Your task to perform on an android device: empty trash in the gmail app Image 0: 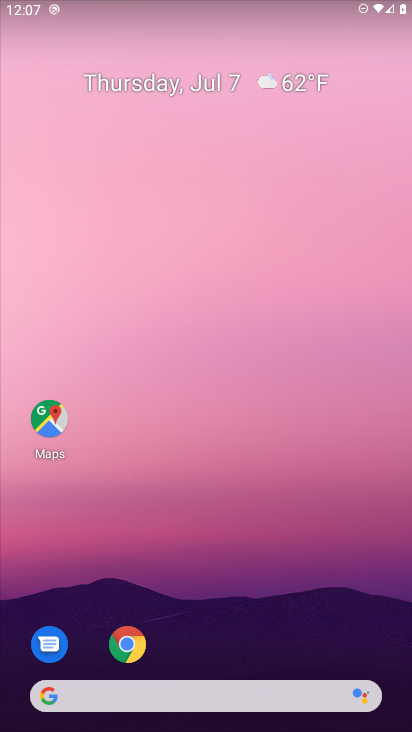
Step 0: press home button
Your task to perform on an android device: empty trash in the gmail app Image 1: 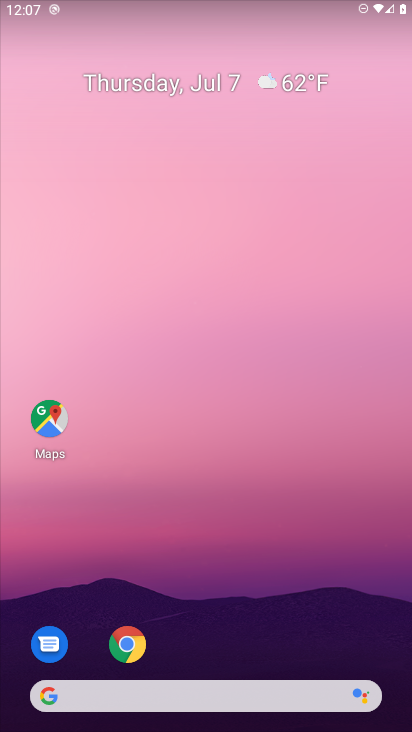
Step 1: drag from (302, 555) to (330, 0)
Your task to perform on an android device: empty trash in the gmail app Image 2: 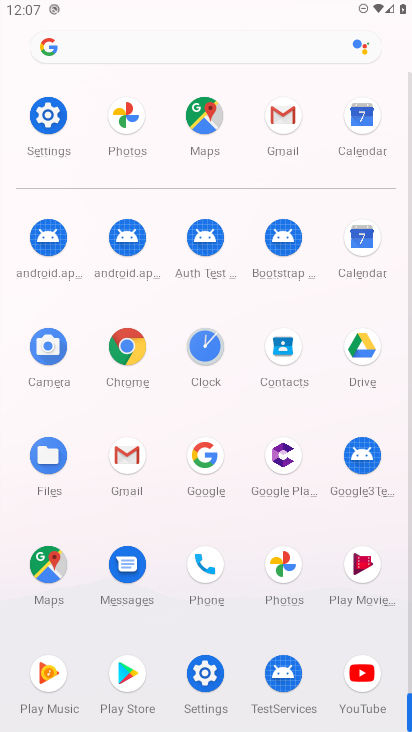
Step 2: click (289, 110)
Your task to perform on an android device: empty trash in the gmail app Image 3: 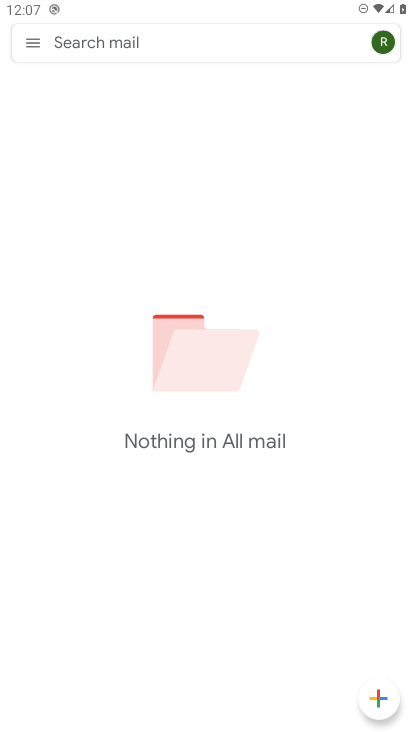
Step 3: click (29, 47)
Your task to perform on an android device: empty trash in the gmail app Image 4: 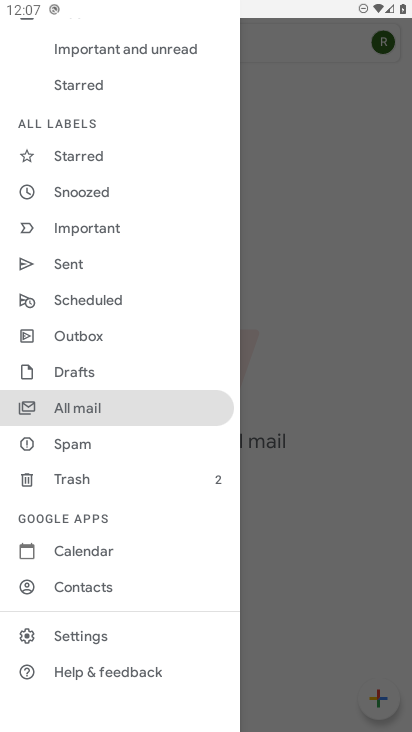
Step 4: click (84, 469)
Your task to perform on an android device: empty trash in the gmail app Image 5: 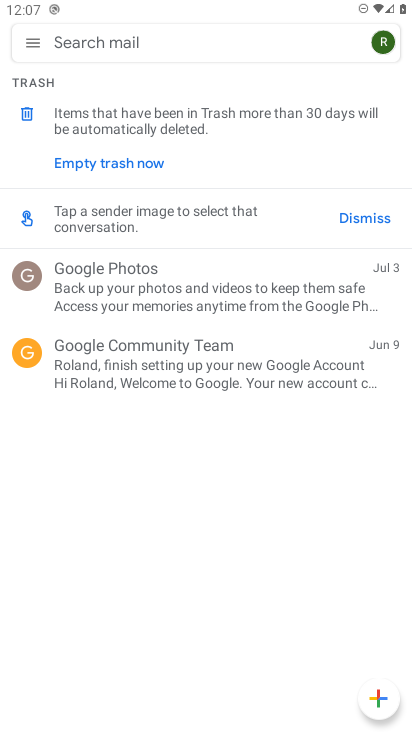
Step 5: click (31, 112)
Your task to perform on an android device: empty trash in the gmail app Image 6: 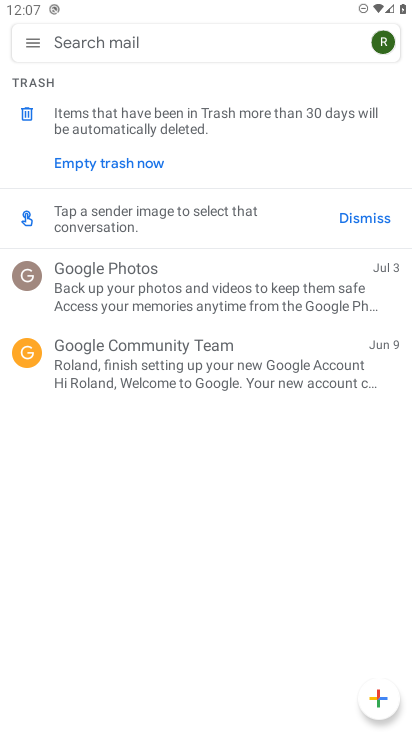
Step 6: click (27, 112)
Your task to perform on an android device: empty trash in the gmail app Image 7: 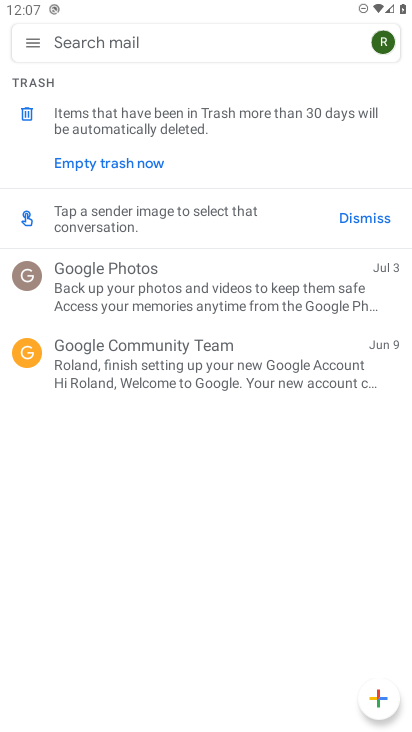
Step 7: click (131, 162)
Your task to perform on an android device: empty trash in the gmail app Image 8: 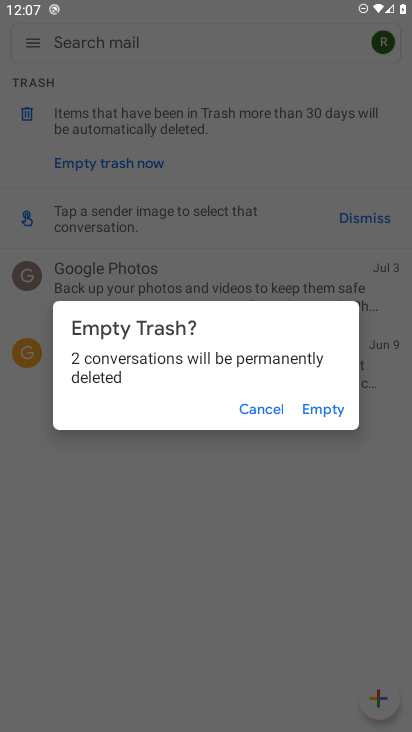
Step 8: click (338, 408)
Your task to perform on an android device: empty trash in the gmail app Image 9: 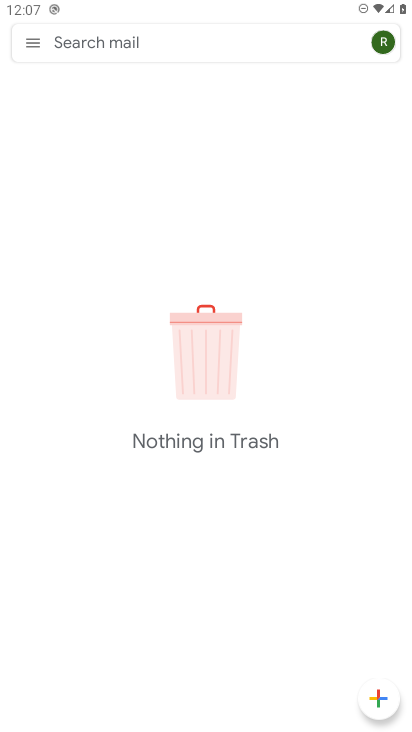
Step 9: task complete